Your task to perform on an android device: toggle improve location accuracy Image 0: 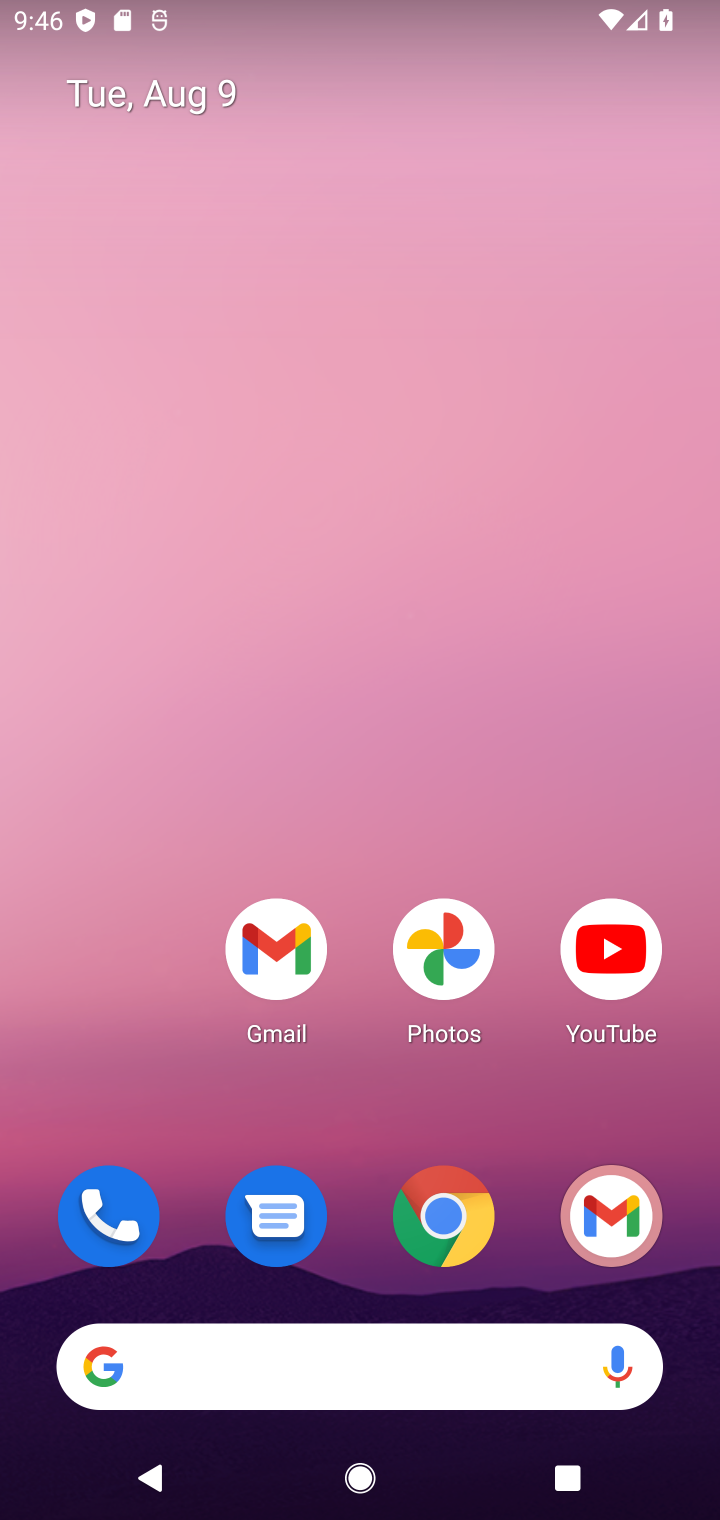
Step 0: drag from (279, 577) to (334, 114)
Your task to perform on an android device: toggle improve location accuracy Image 1: 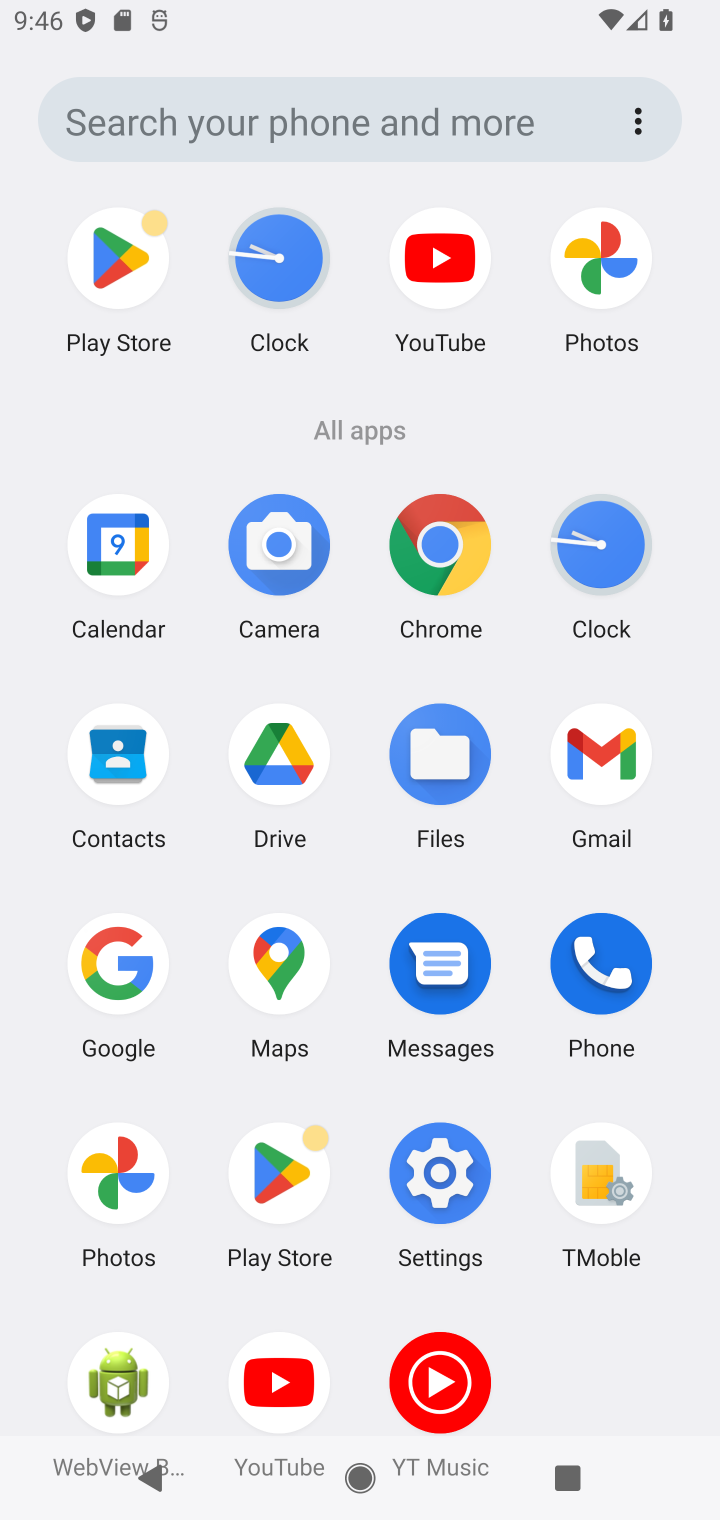
Step 1: click (445, 1200)
Your task to perform on an android device: toggle improve location accuracy Image 2: 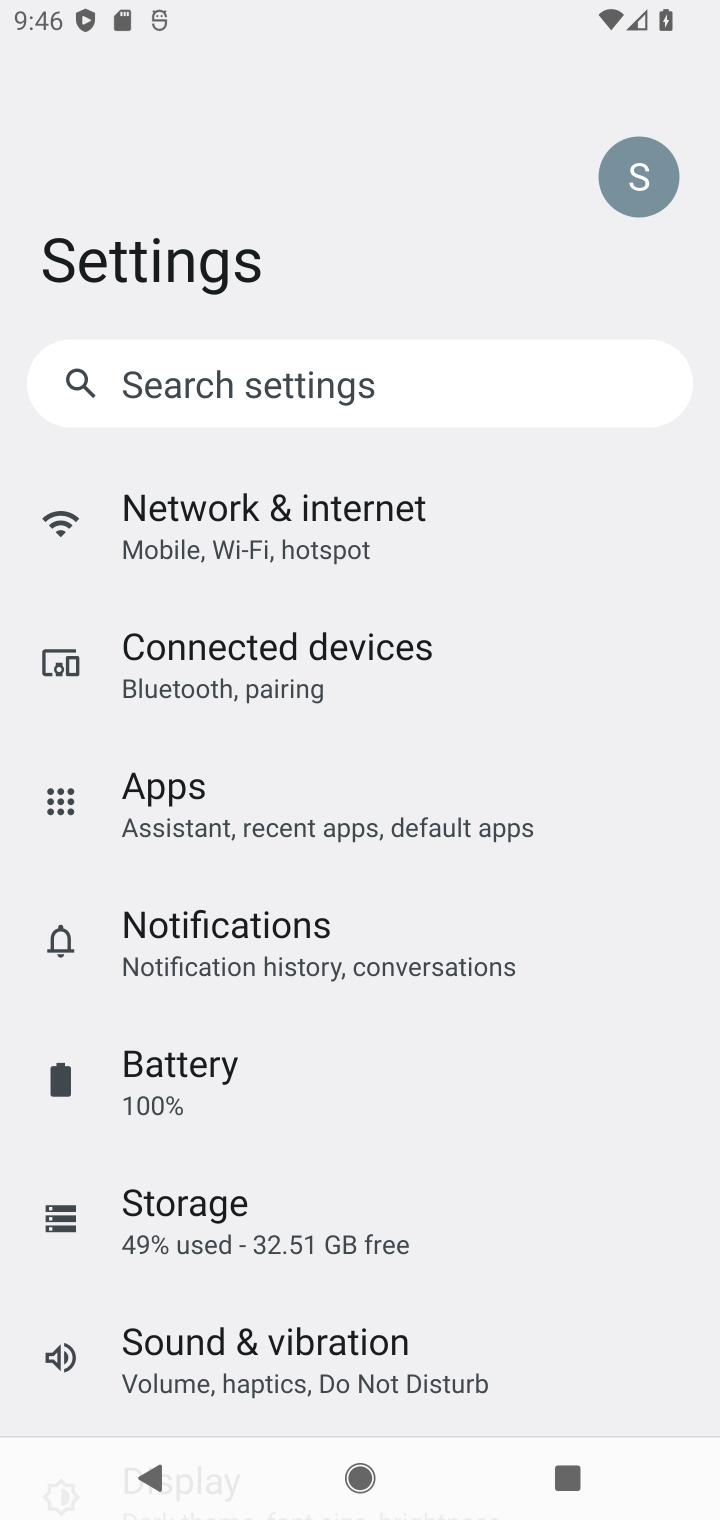
Step 2: drag from (371, 1299) to (517, 223)
Your task to perform on an android device: toggle improve location accuracy Image 3: 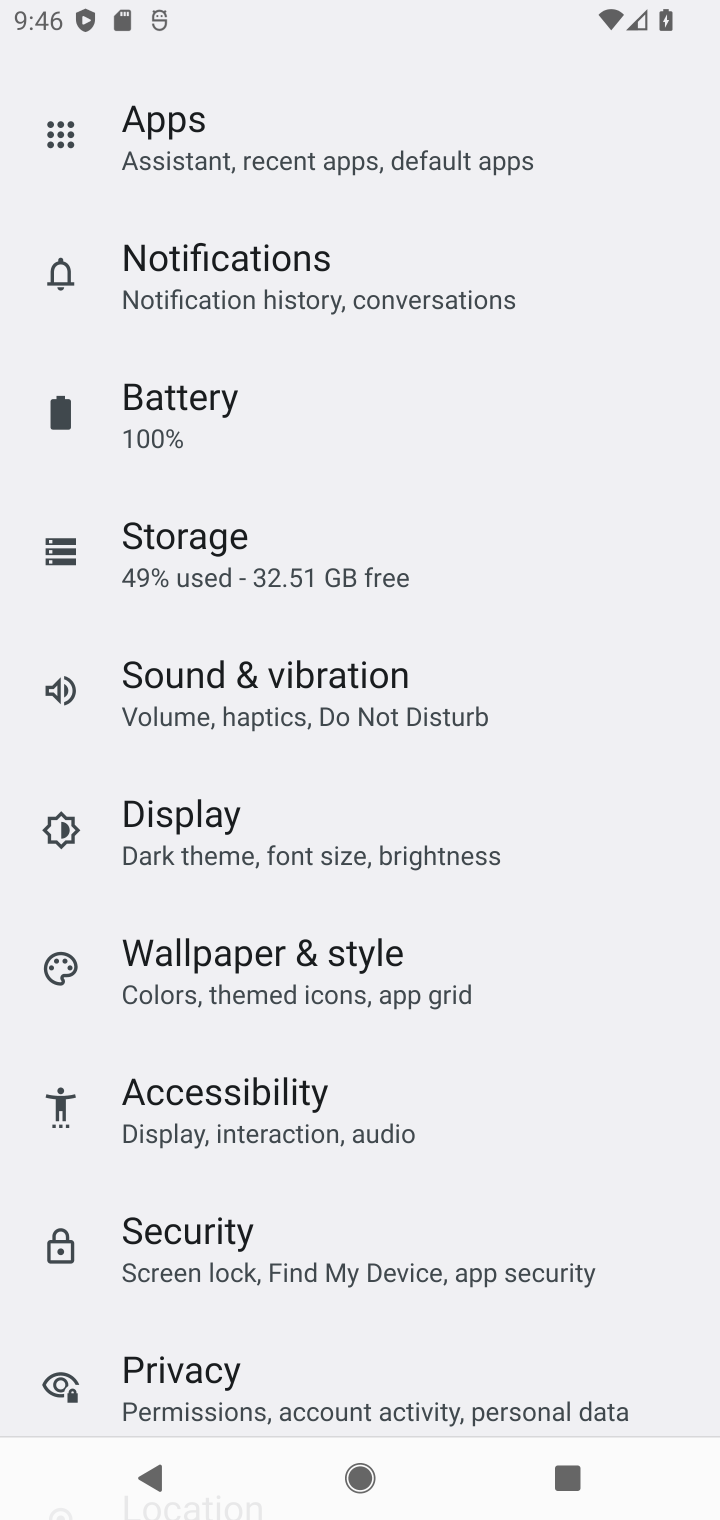
Step 3: drag from (279, 1362) to (482, 207)
Your task to perform on an android device: toggle improve location accuracy Image 4: 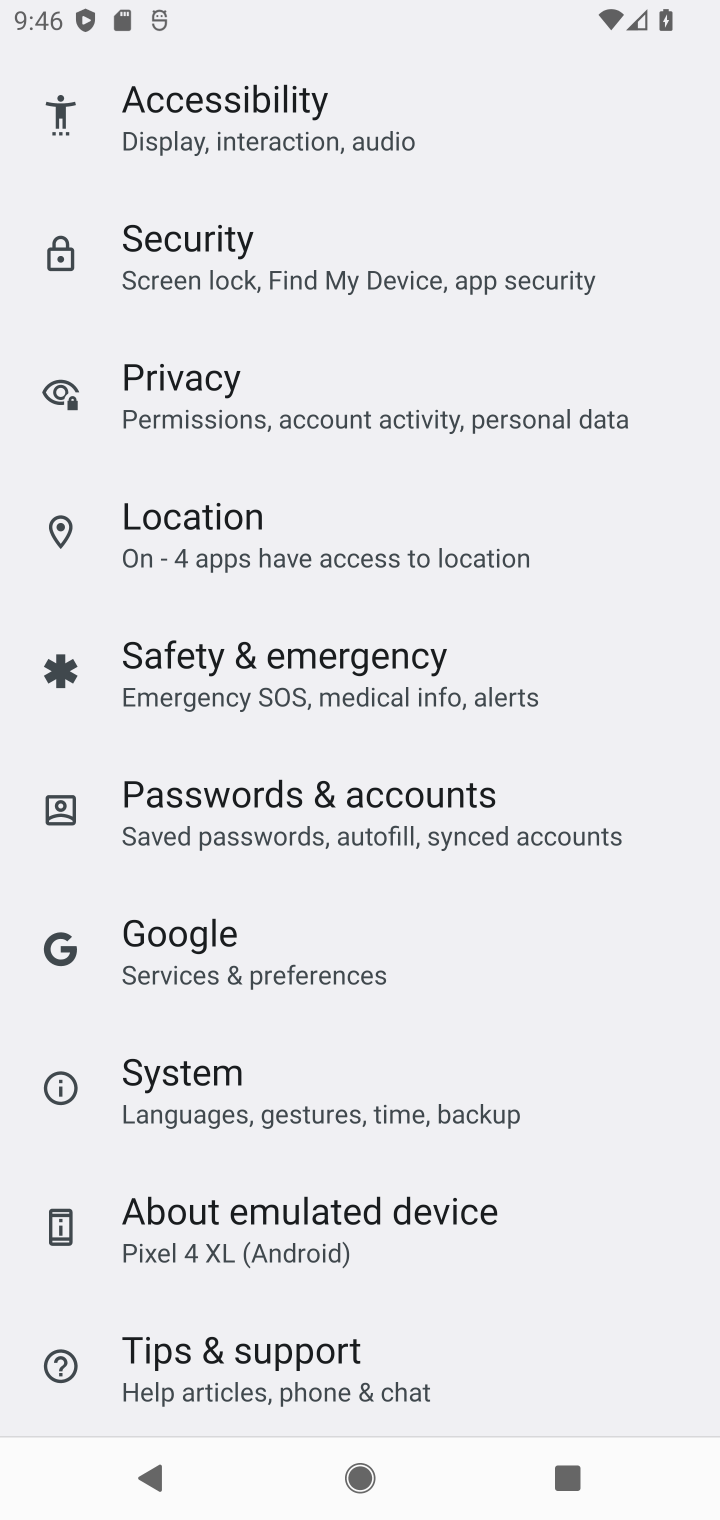
Step 4: click (267, 524)
Your task to perform on an android device: toggle improve location accuracy Image 5: 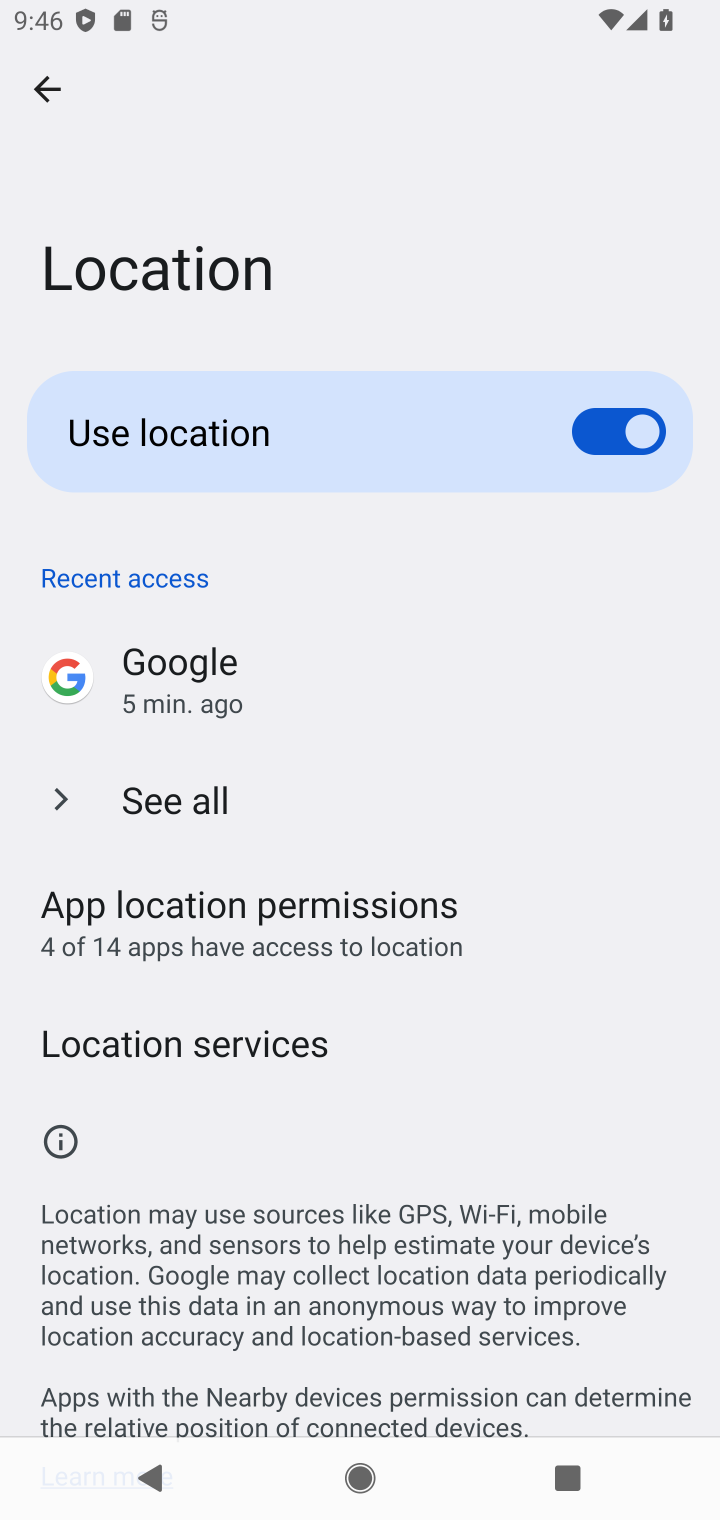
Step 5: click (159, 1026)
Your task to perform on an android device: toggle improve location accuracy Image 6: 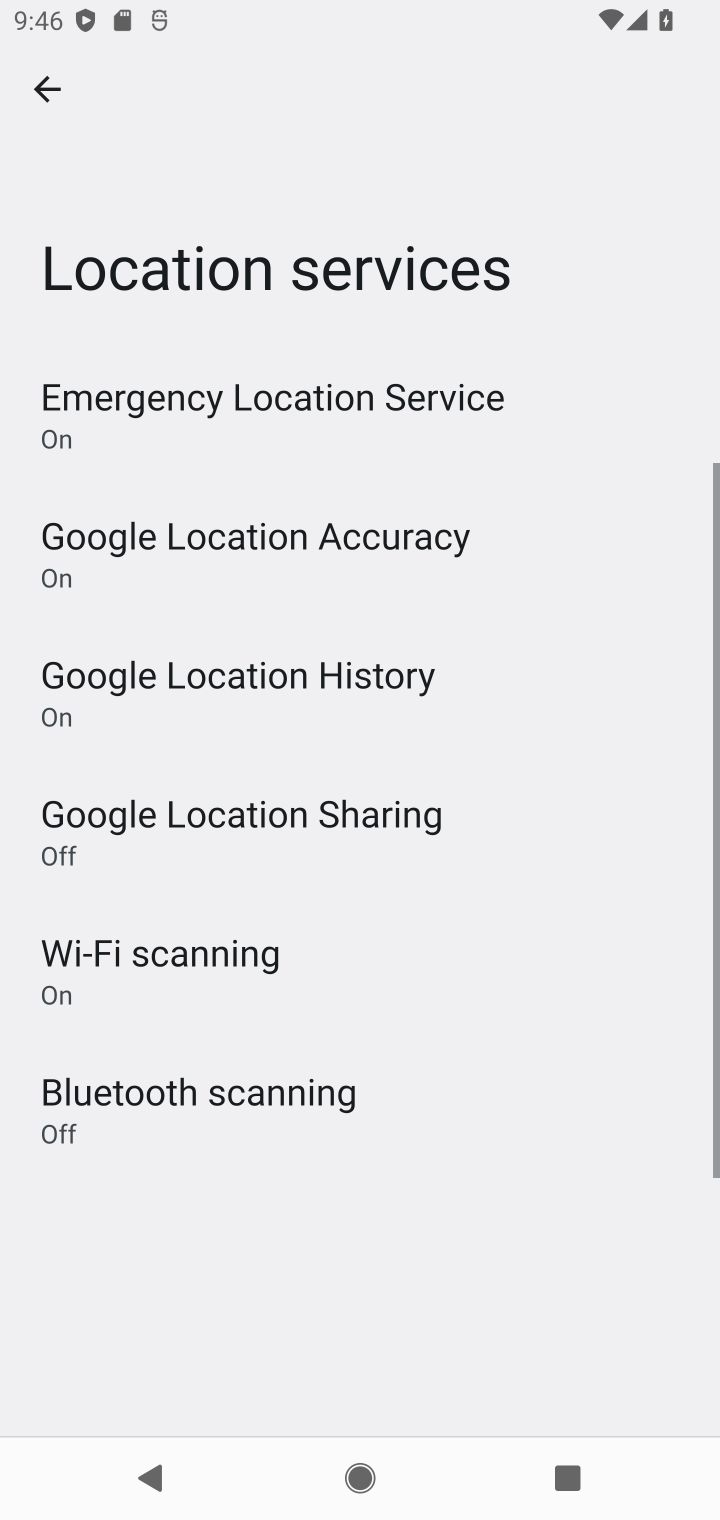
Step 6: click (297, 528)
Your task to perform on an android device: toggle improve location accuracy Image 7: 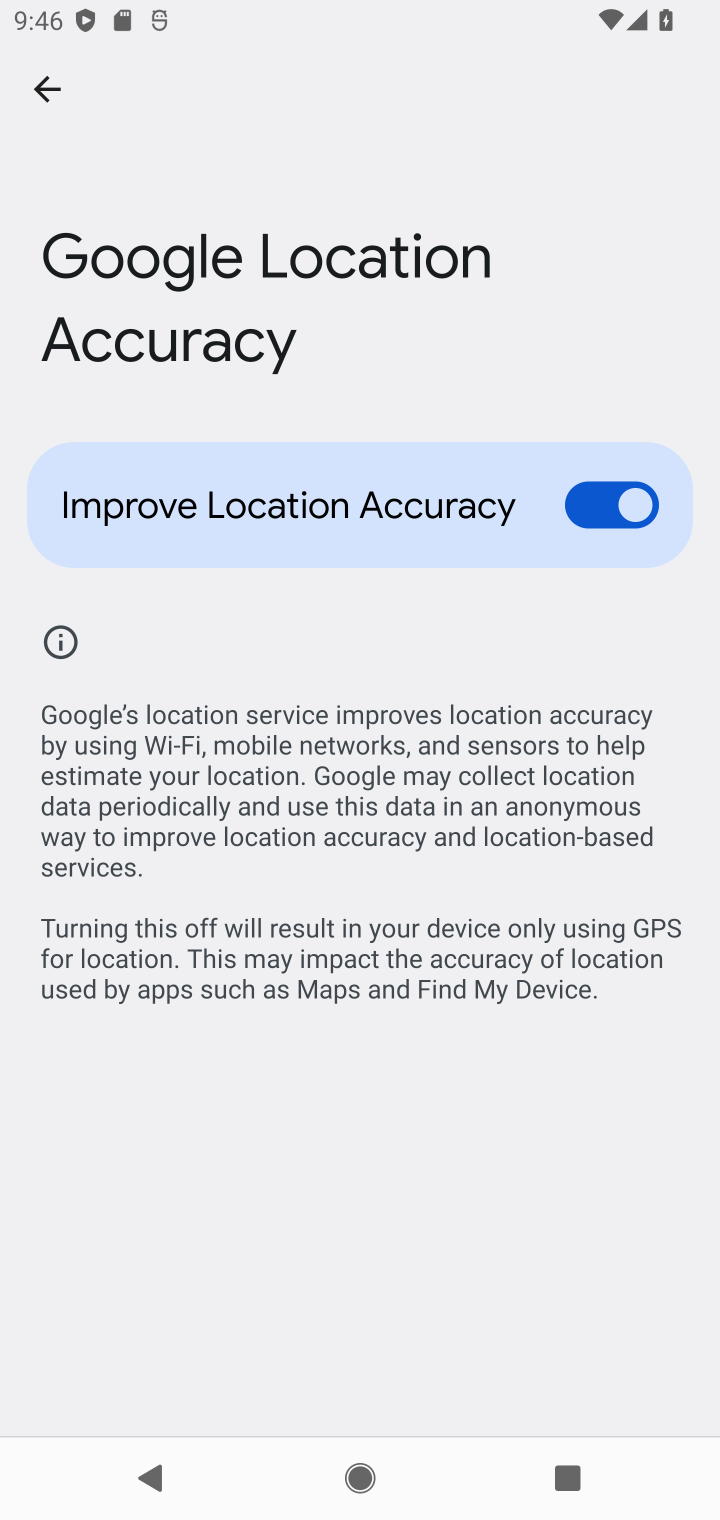
Step 7: click (628, 504)
Your task to perform on an android device: toggle improve location accuracy Image 8: 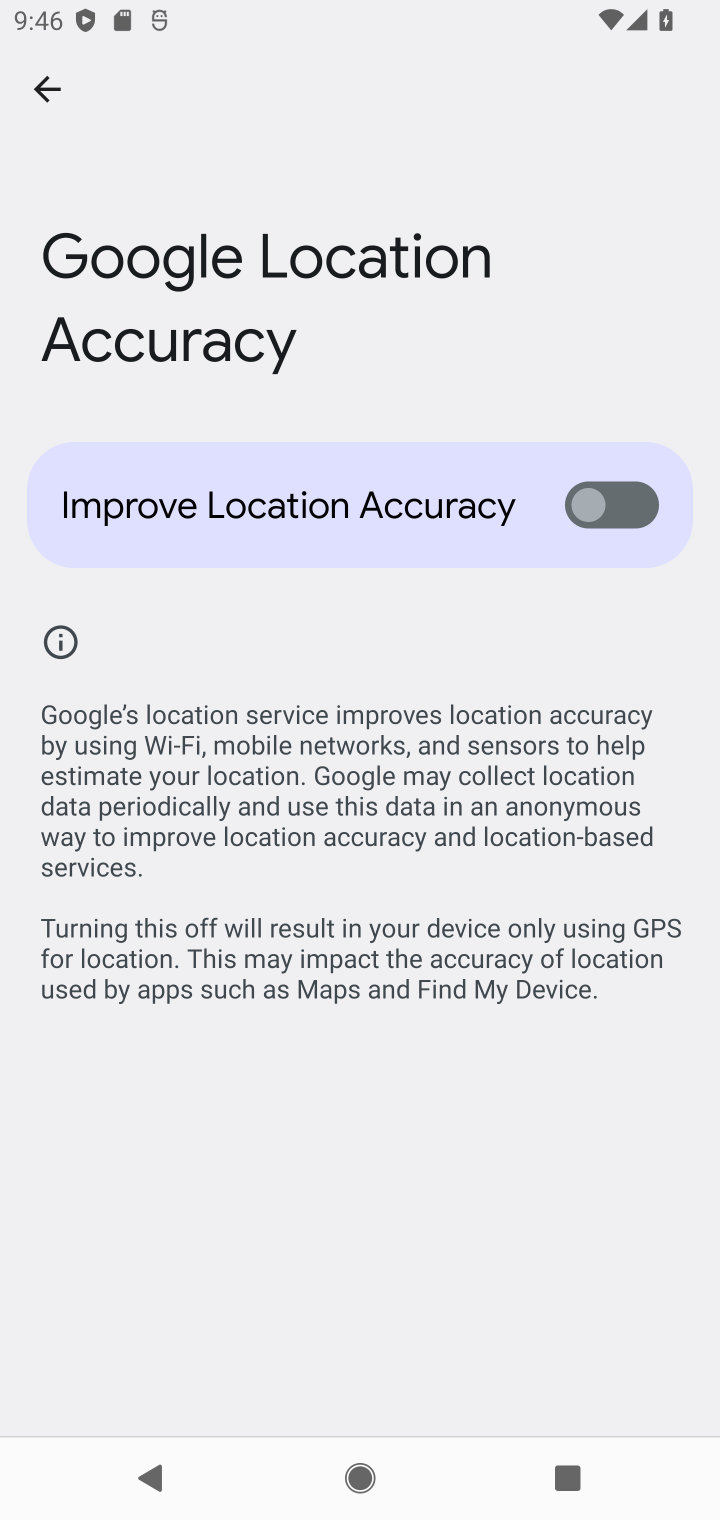
Step 8: task complete